Your task to perform on an android device: toggle location history Image 0: 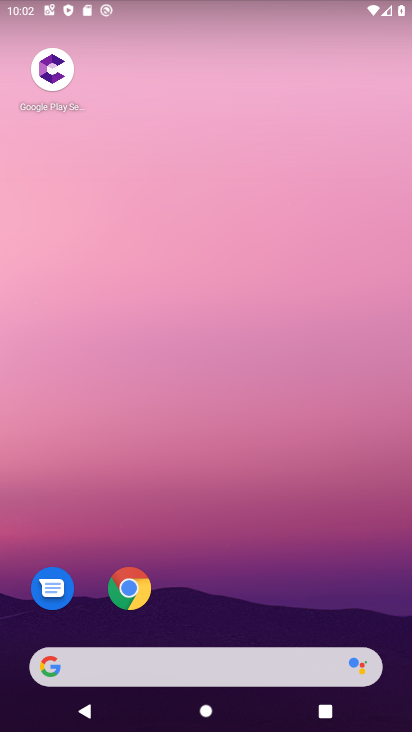
Step 0: drag from (79, 483) to (277, 56)
Your task to perform on an android device: toggle location history Image 1: 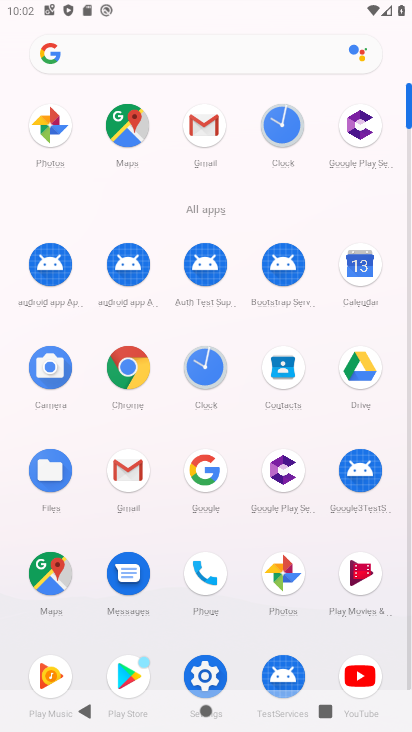
Step 1: click (203, 682)
Your task to perform on an android device: toggle location history Image 2: 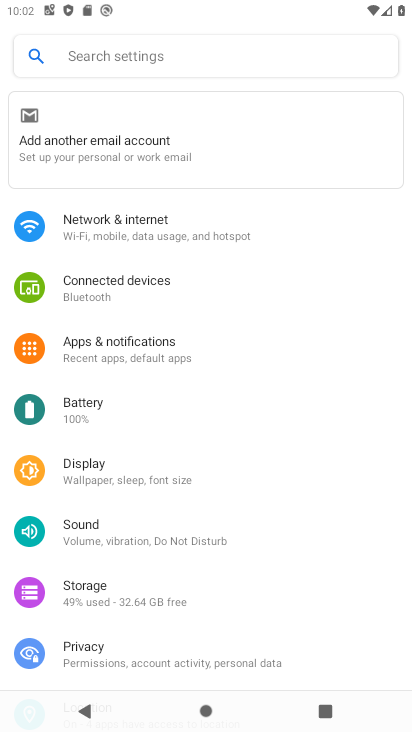
Step 2: drag from (112, 662) to (256, 199)
Your task to perform on an android device: toggle location history Image 3: 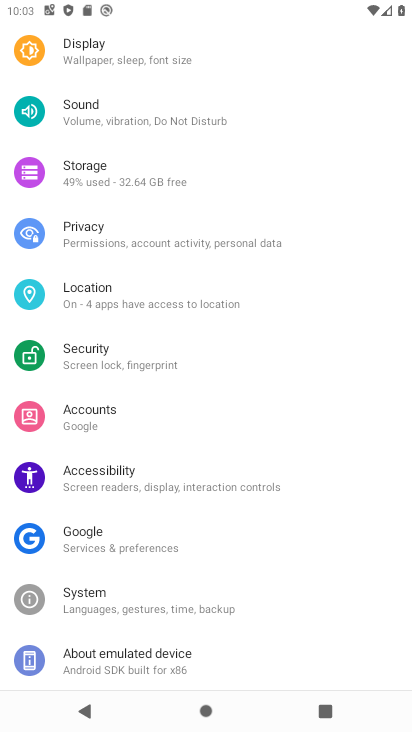
Step 3: click (96, 300)
Your task to perform on an android device: toggle location history Image 4: 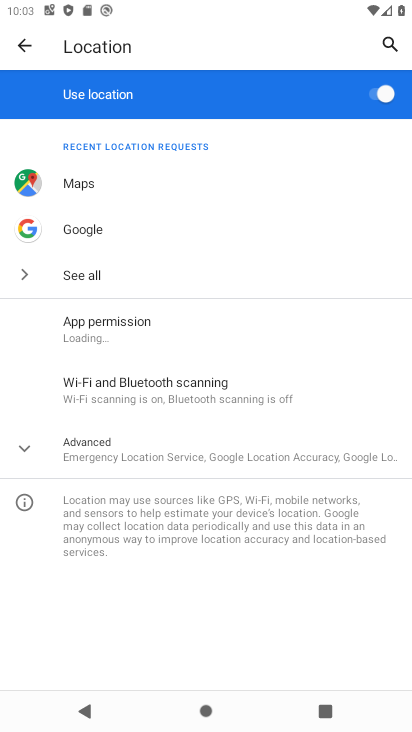
Step 4: click (137, 457)
Your task to perform on an android device: toggle location history Image 5: 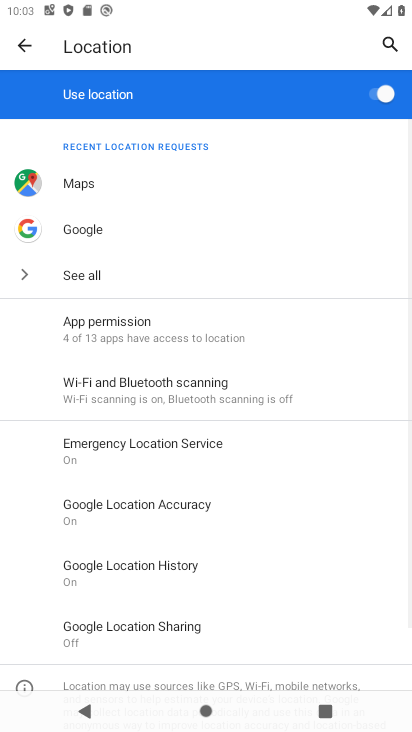
Step 5: click (142, 567)
Your task to perform on an android device: toggle location history Image 6: 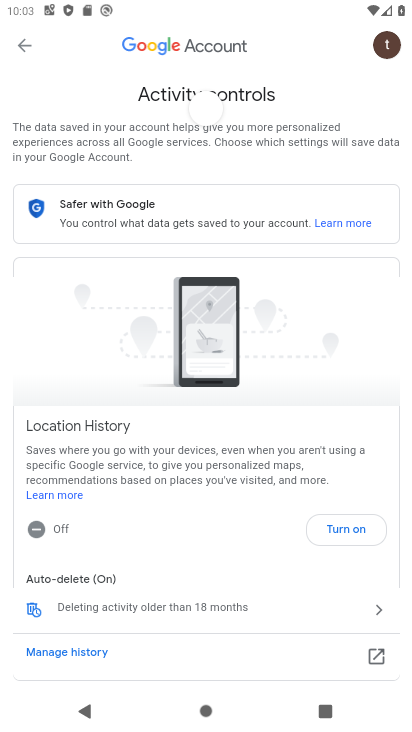
Step 6: click (352, 533)
Your task to perform on an android device: toggle location history Image 7: 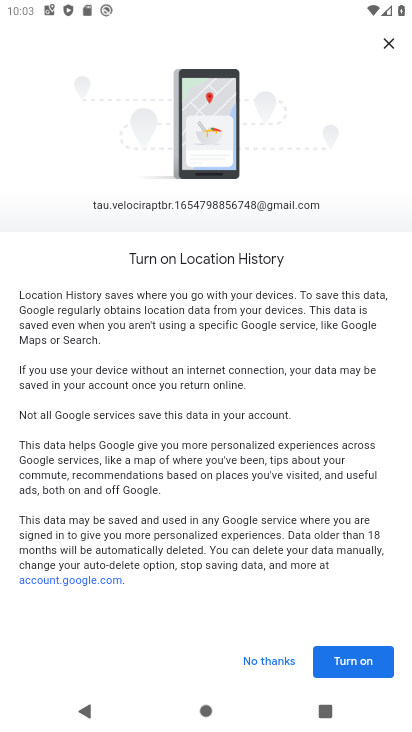
Step 7: click (359, 665)
Your task to perform on an android device: toggle location history Image 8: 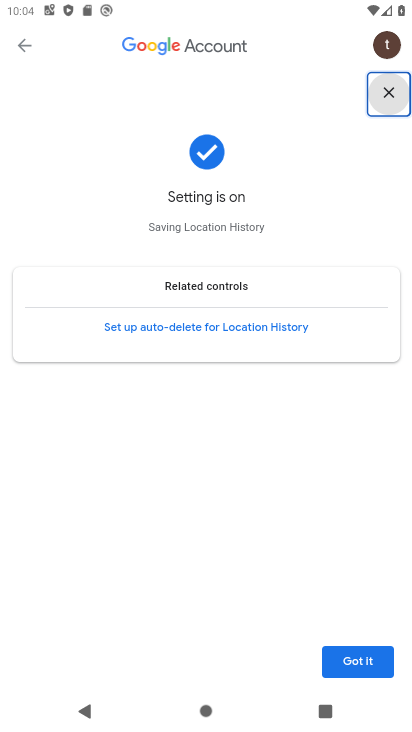
Step 8: task complete